Your task to perform on an android device: Search for flights from NYC to Chicago Image 0: 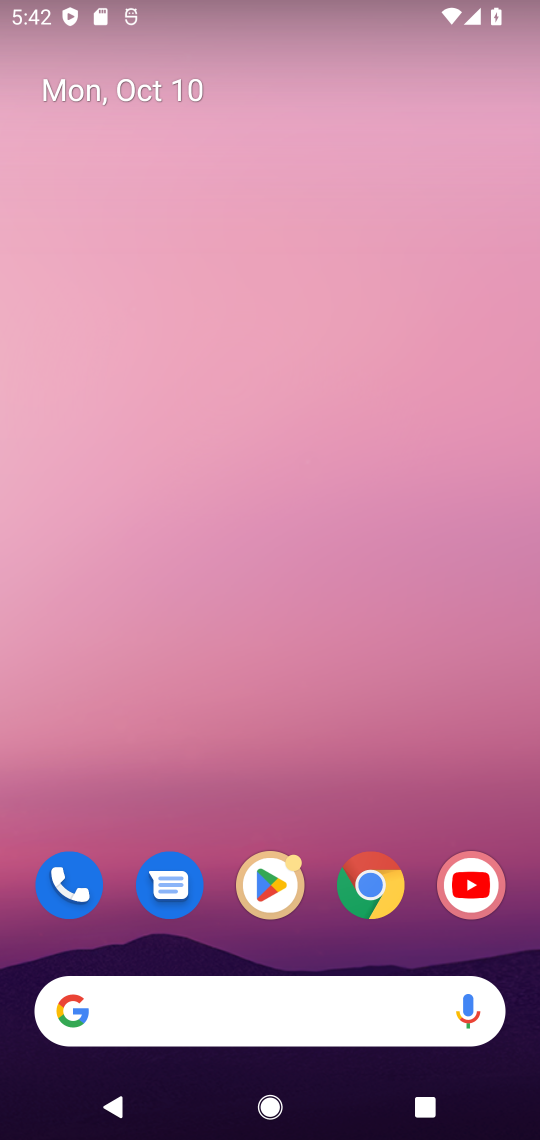
Step 0: click (368, 888)
Your task to perform on an android device: Search for flights from NYC to Chicago Image 1: 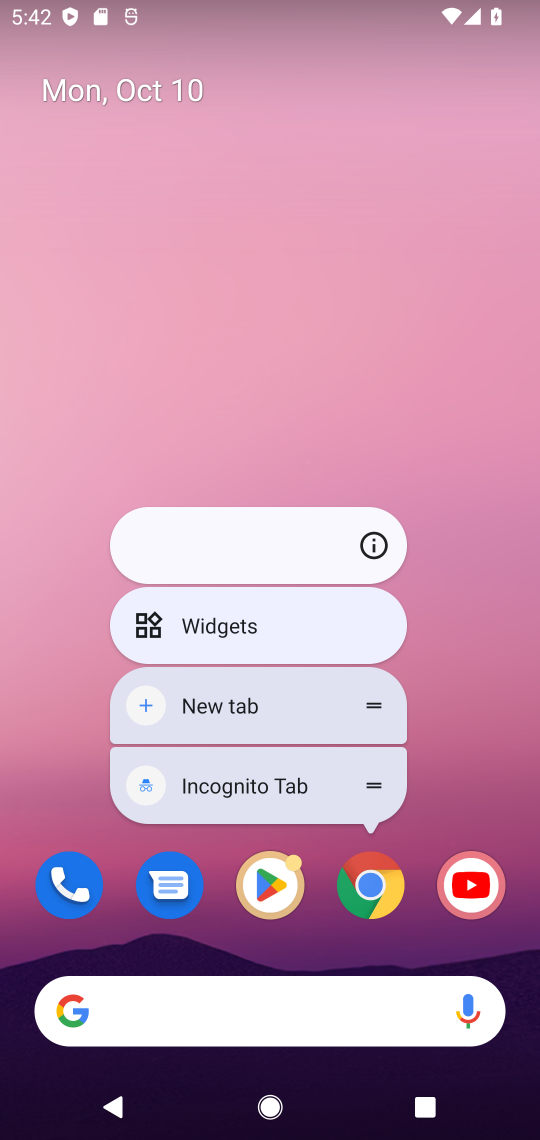
Step 1: click (380, 900)
Your task to perform on an android device: Search for flights from NYC to Chicago Image 2: 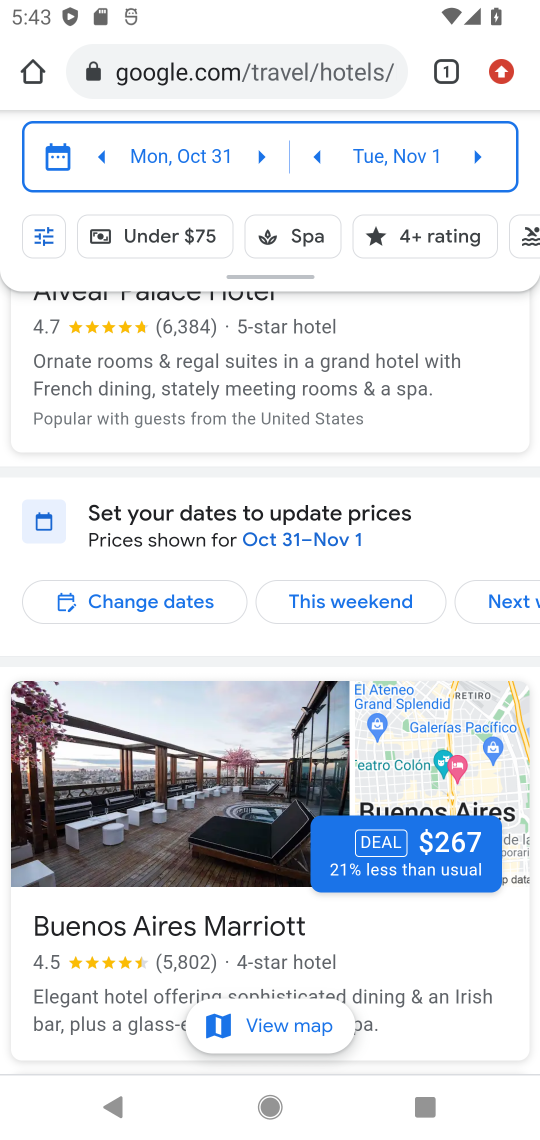
Step 2: click (271, 70)
Your task to perform on an android device: Search for flights from NYC to Chicago Image 3: 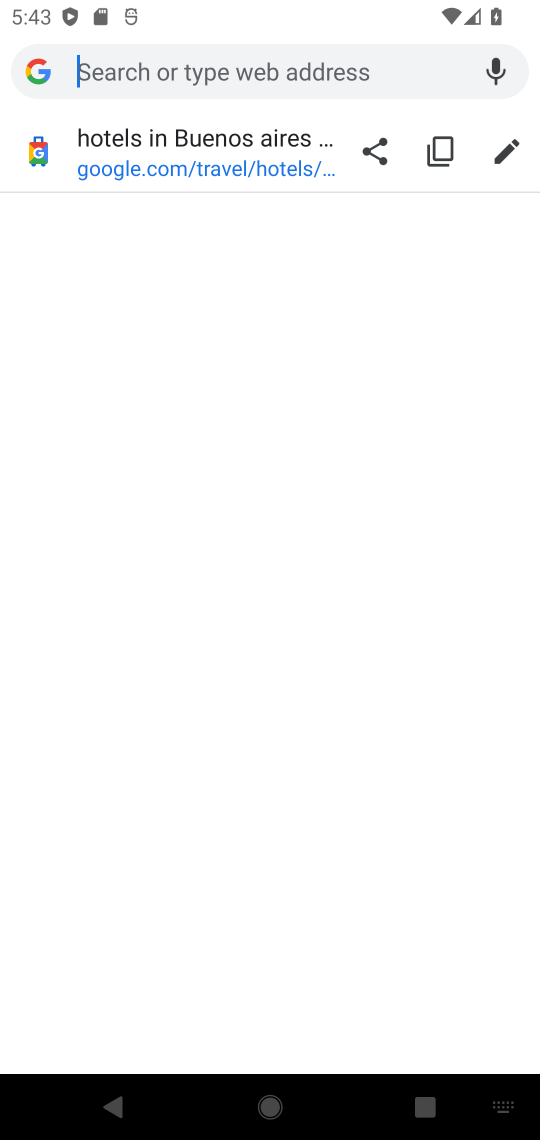
Step 3: type "lights from NYC to Chicago"
Your task to perform on an android device: Search for flights from NYC to Chicago Image 4: 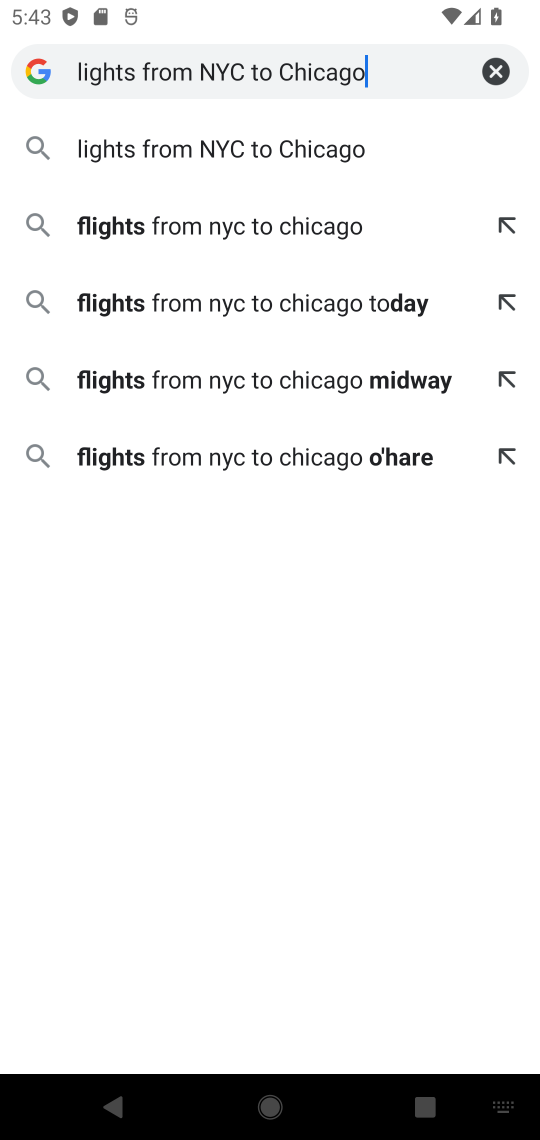
Step 4: click (285, 141)
Your task to perform on an android device: Search for flights from NYC to Chicago Image 5: 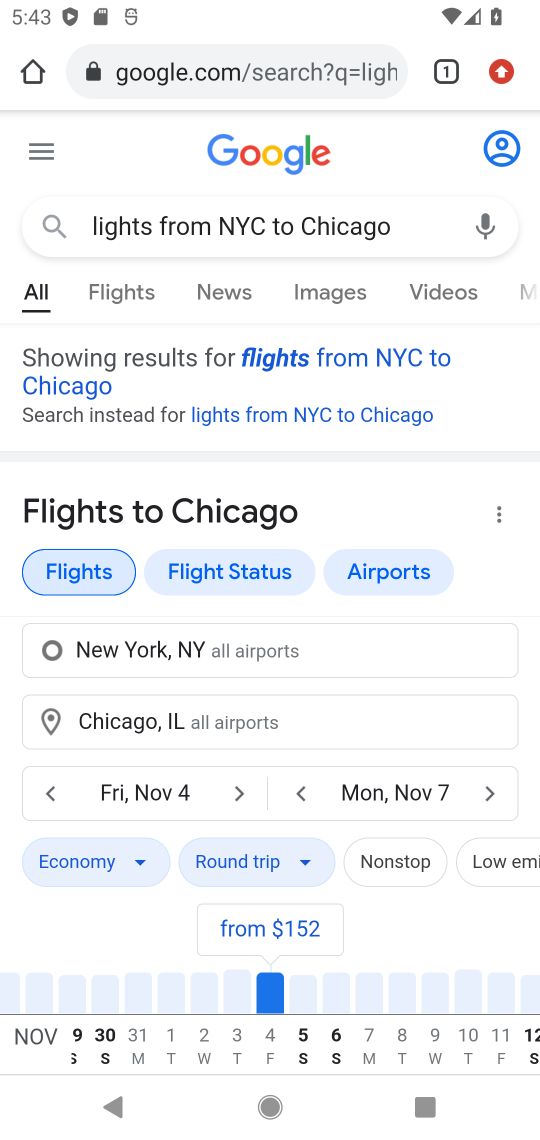
Step 5: drag from (469, 917) to (281, 202)
Your task to perform on an android device: Search for flights from NYC to Chicago Image 6: 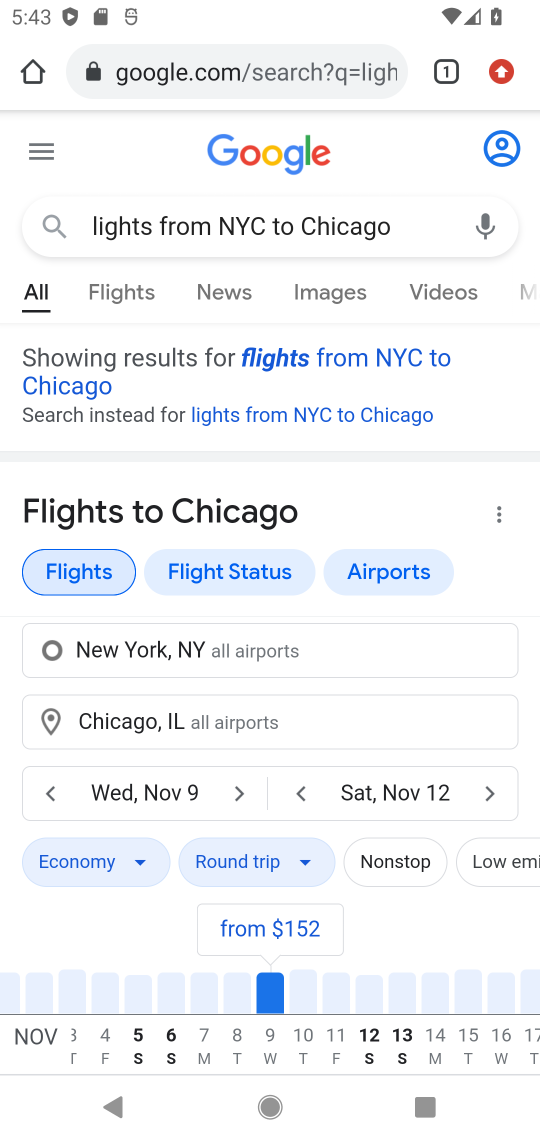
Step 6: drag from (393, 920) to (423, 513)
Your task to perform on an android device: Search for flights from NYC to Chicago Image 7: 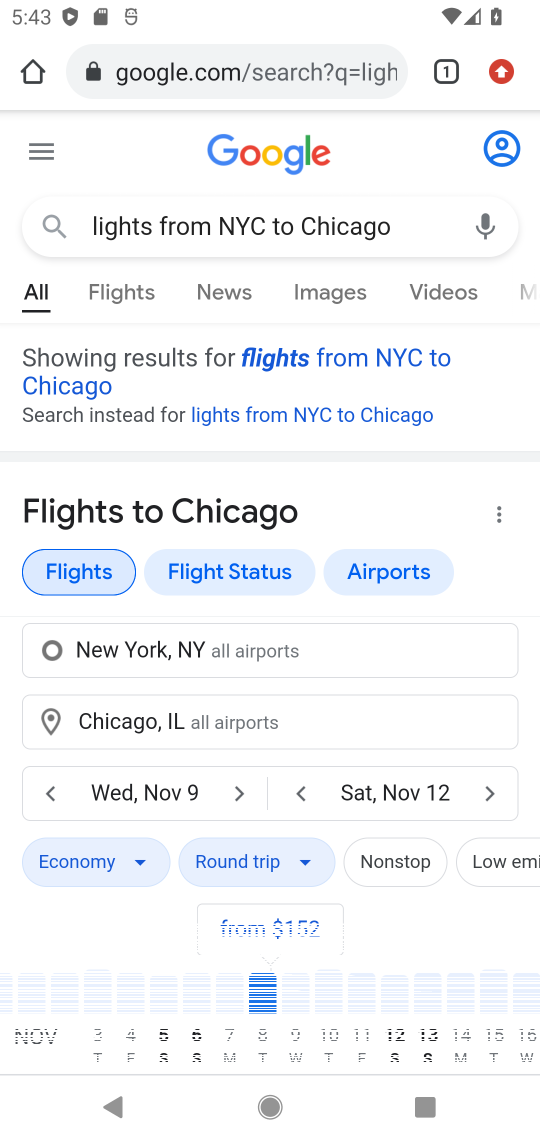
Step 7: drag from (386, 753) to (431, 88)
Your task to perform on an android device: Search for flights from NYC to Chicago Image 8: 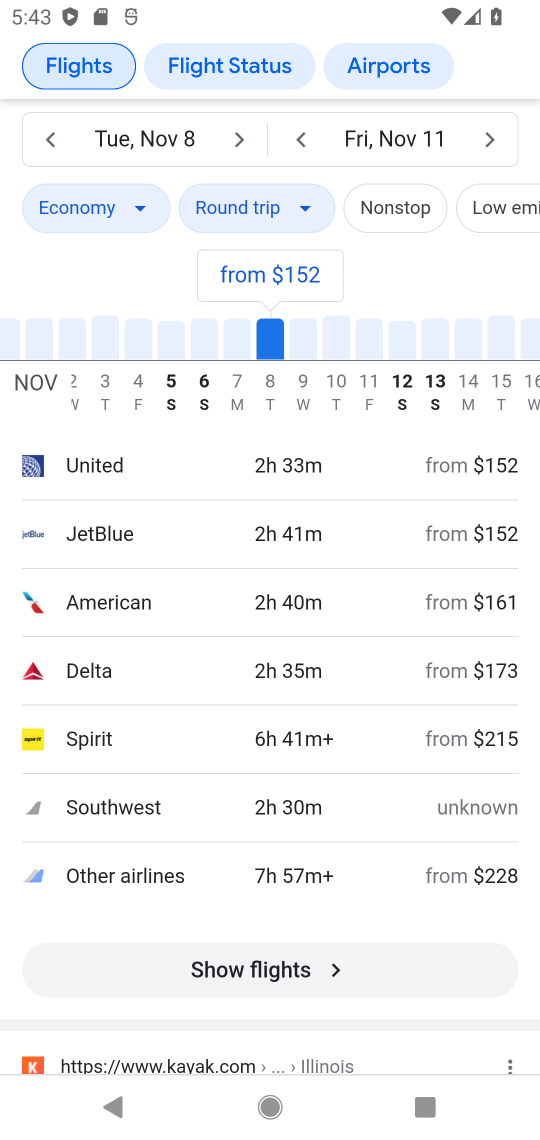
Step 8: click (284, 980)
Your task to perform on an android device: Search for flights from NYC to Chicago Image 9: 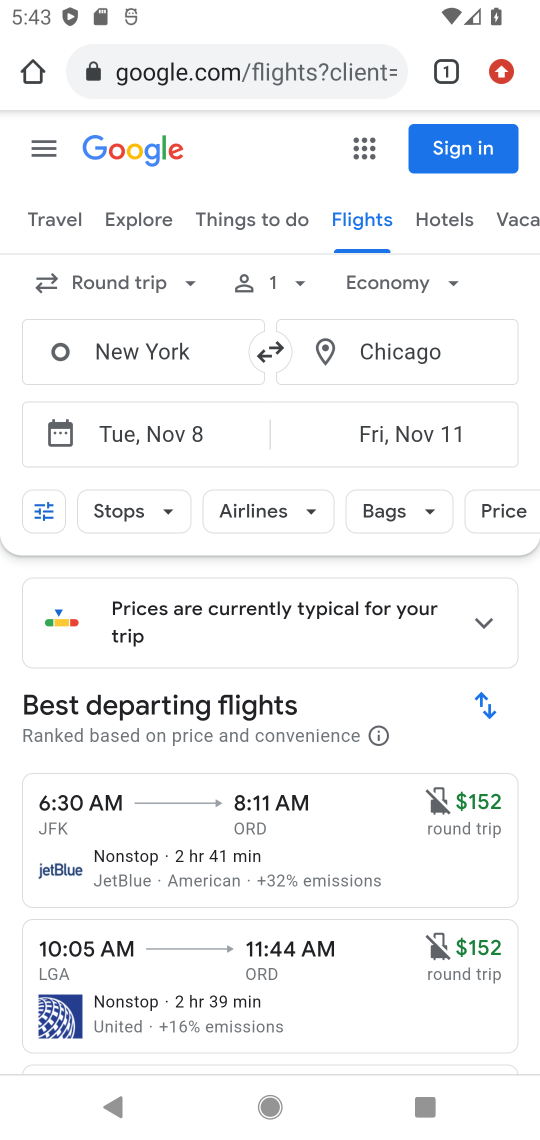
Step 9: task complete